Your task to perform on an android device: toggle javascript in the chrome app Image 0: 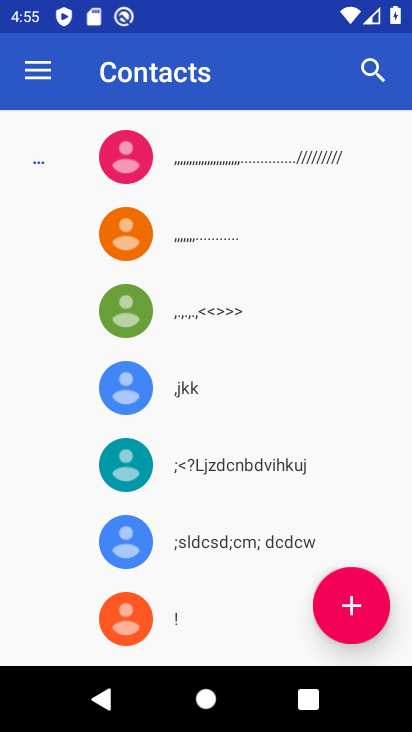
Step 0: press home button
Your task to perform on an android device: toggle javascript in the chrome app Image 1: 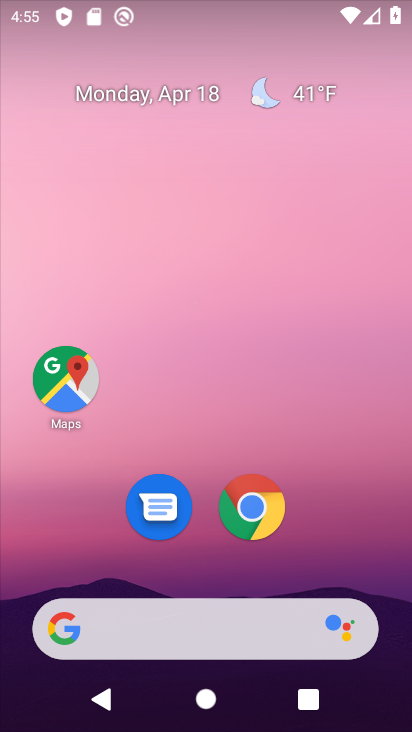
Step 1: drag from (270, 587) to (303, 60)
Your task to perform on an android device: toggle javascript in the chrome app Image 2: 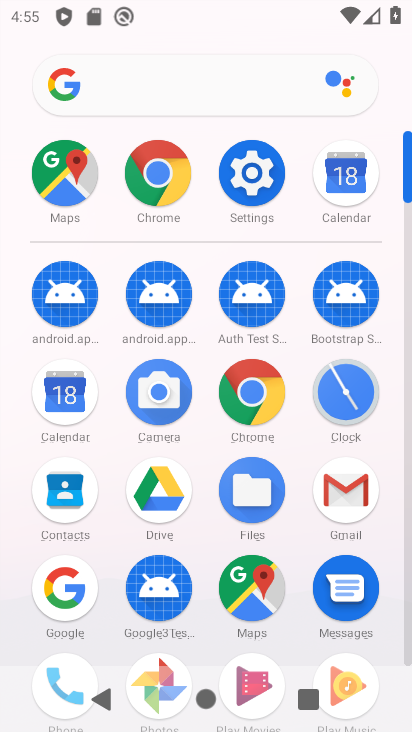
Step 2: click (245, 406)
Your task to perform on an android device: toggle javascript in the chrome app Image 3: 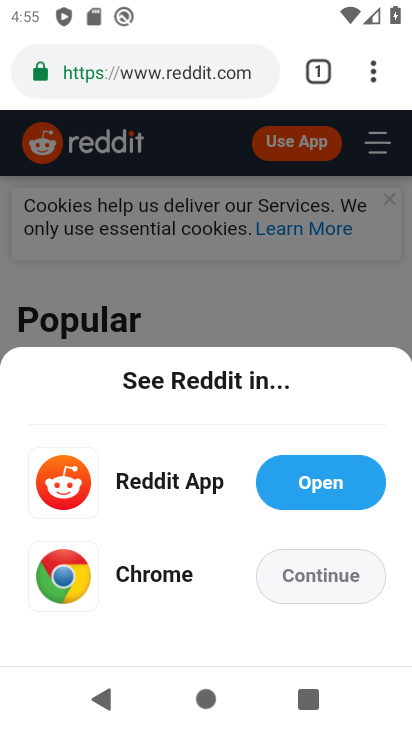
Step 3: click (363, 69)
Your task to perform on an android device: toggle javascript in the chrome app Image 4: 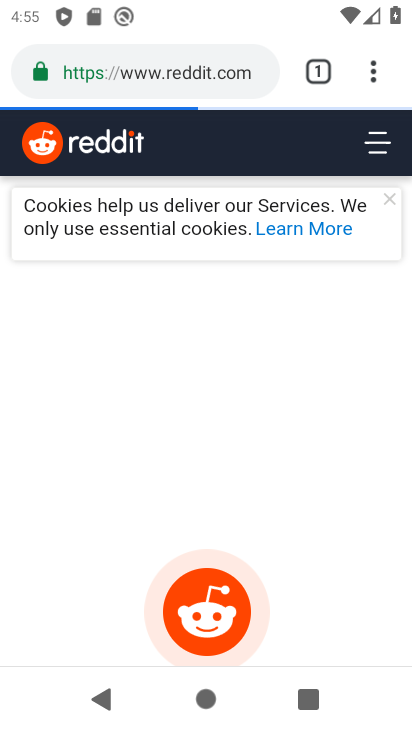
Step 4: click (386, 70)
Your task to perform on an android device: toggle javascript in the chrome app Image 5: 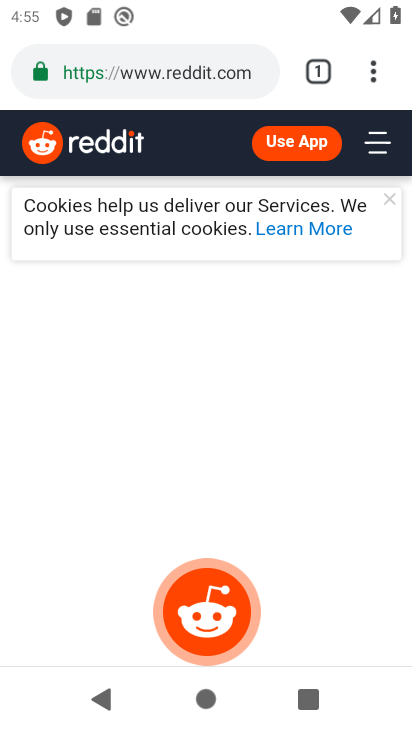
Step 5: click (387, 67)
Your task to perform on an android device: toggle javascript in the chrome app Image 6: 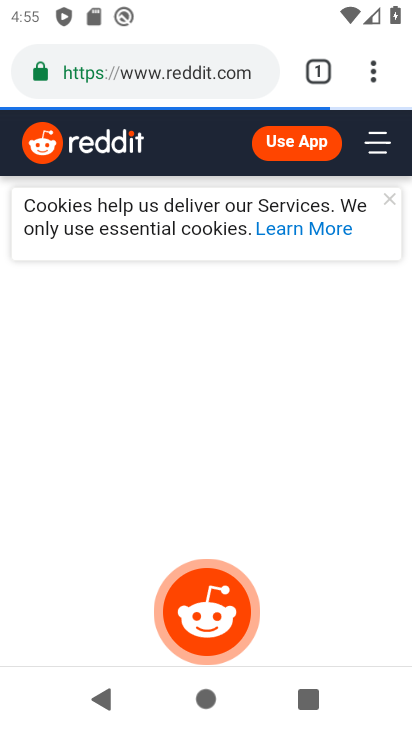
Step 6: click (362, 68)
Your task to perform on an android device: toggle javascript in the chrome app Image 7: 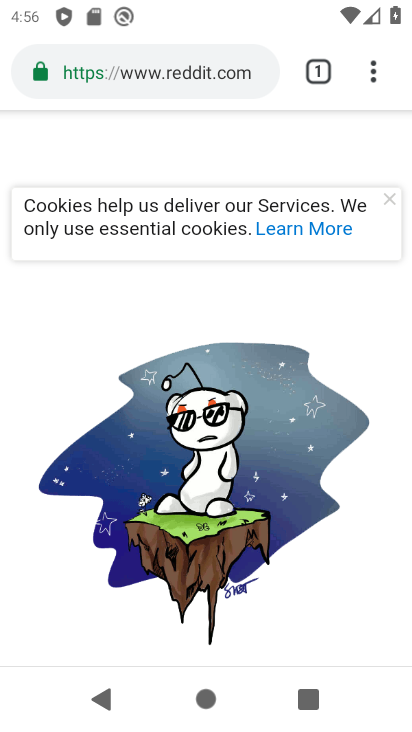
Step 7: click (394, 64)
Your task to perform on an android device: toggle javascript in the chrome app Image 8: 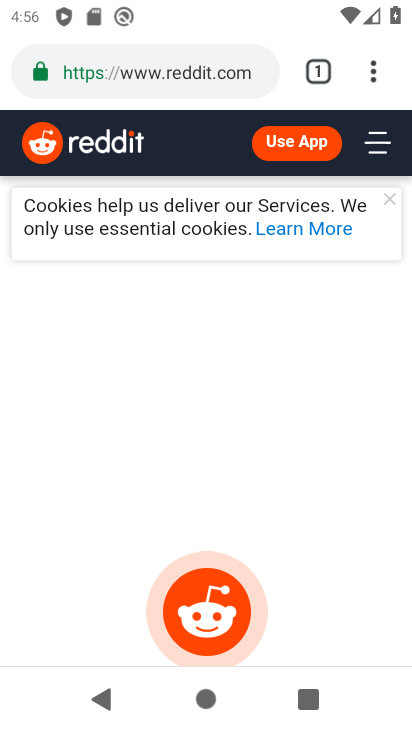
Step 8: click (373, 75)
Your task to perform on an android device: toggle javascript in the chrome app Image 9: 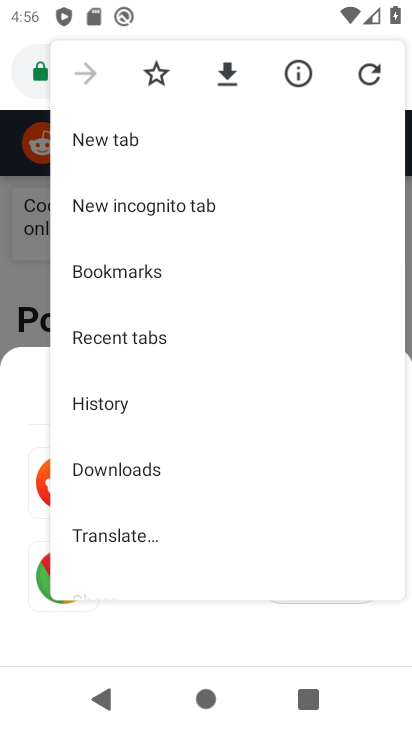
Step 9: drag from (262, 536) to (267, 61)
Your task to perform on an android device: toggle javascript in the chrome app Image 10: 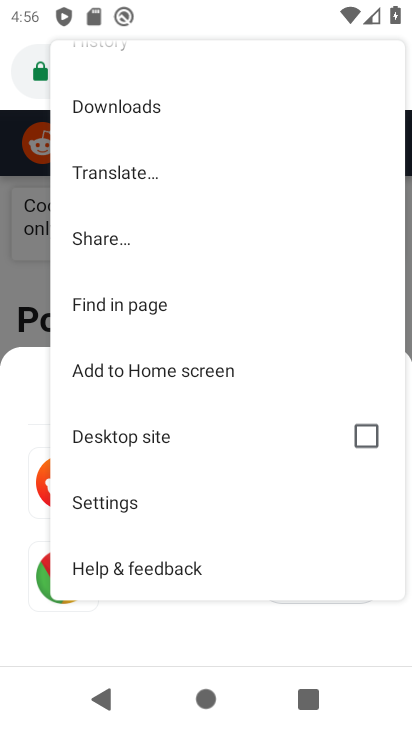
Step 10: click (116, 505)
Your task to perform on an android device: toggle javascript in the chrome app Image 11: 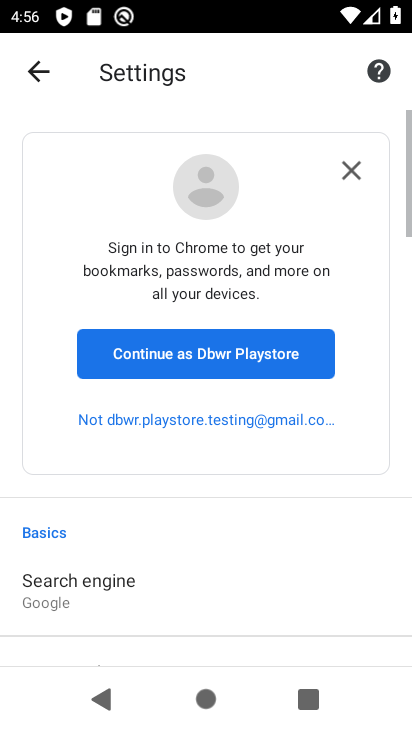
Step 11: drag from (257, 562) to (305, 134)
Your task to perform on an android device: toggle javascript in the chrome app Image 12: 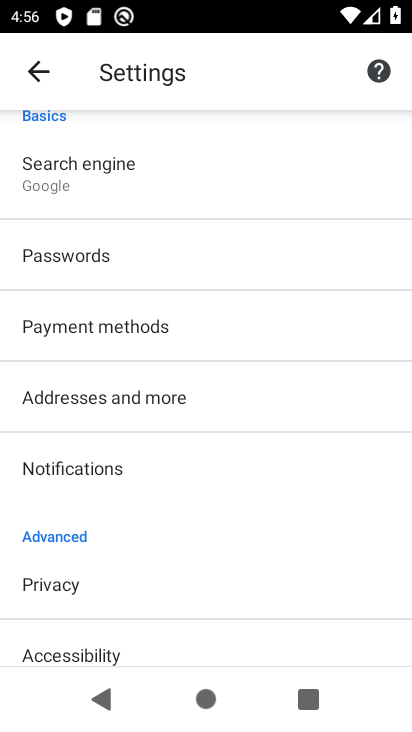
Step 12: drag from (182, 609) to (223, 174)
Your task to perform on an android device: toggle javascript in the chrome app Image 13: 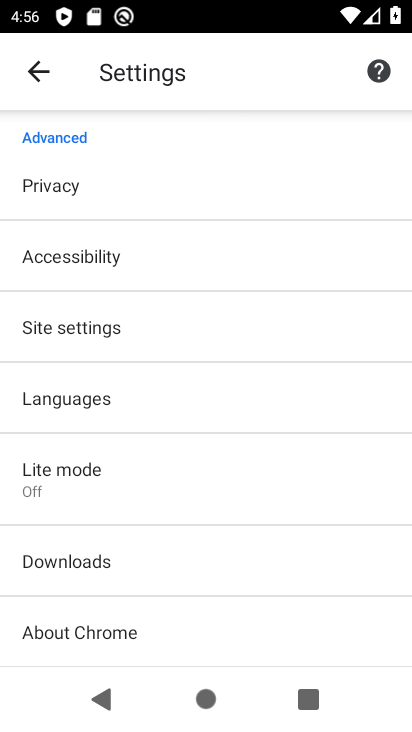
Step 13: click (116, 343)
Your task to perform on an android device: toggle javascript in the chrome app Image 14: 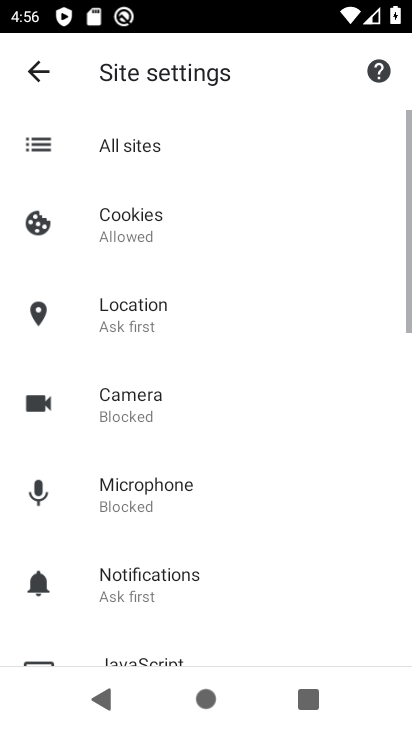
Step 14: drag from (249, 617) to (313, 162)
Your task to perform on an android device: toggle javascript in the chrome app Image 15: 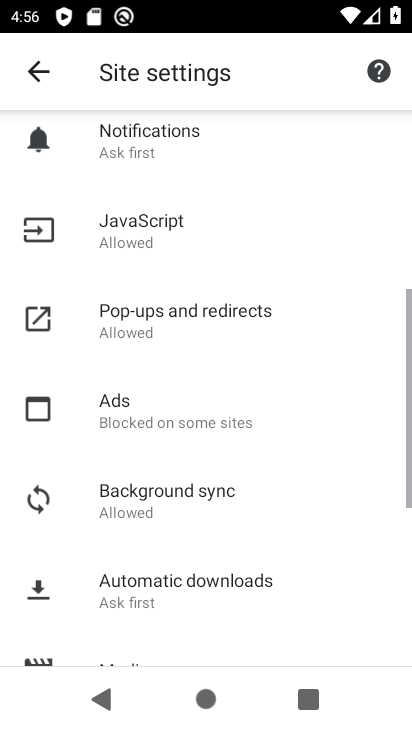
Step 15: click (172, 234)
Your task to perform on an android device: toggle javascript in the chrome app Image 16: 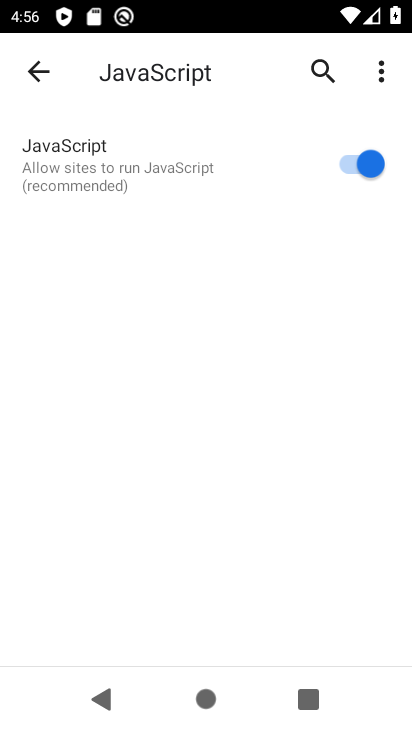
Step 16: click (346, 166)
Your task to perform on an android device: toggle javascript in the chrome app Image 17: 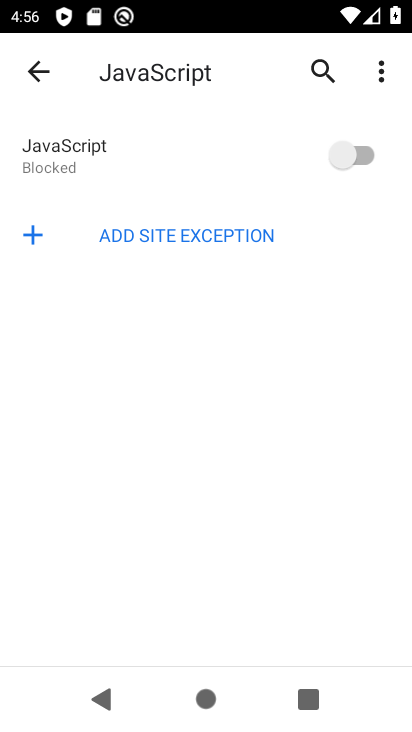
Step 17: task complete